Your task to perform on an android device: toggle translation in the chrome app Image 0: 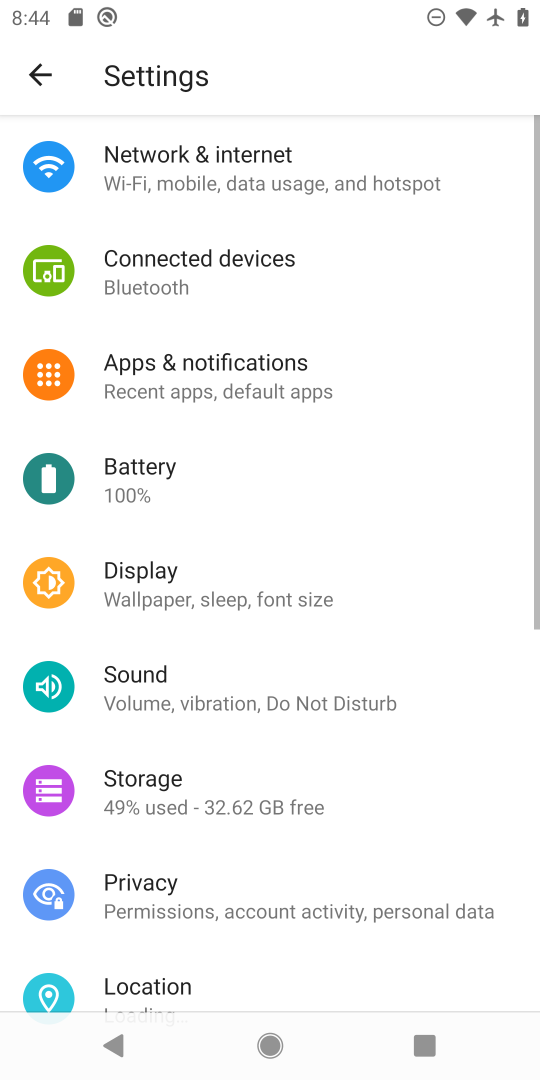
Step 0: press home button
Your task to perform on an android device: toggle translation in the chrome app Image 1: 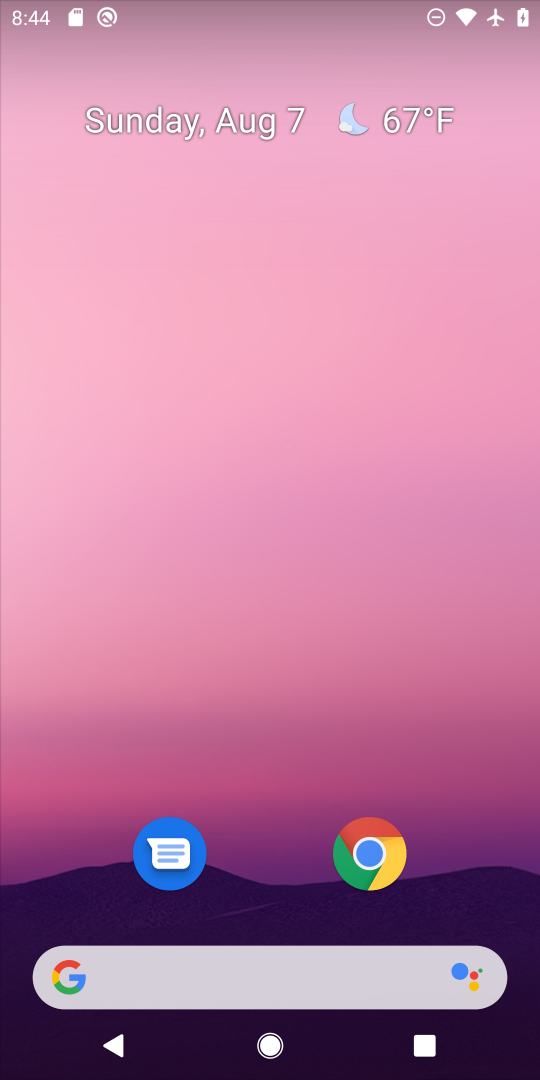
Step 1: drag from (234, 800) to (266, 157)
Your task to perform on an android device: toggle translation in the chrome app Image 2: 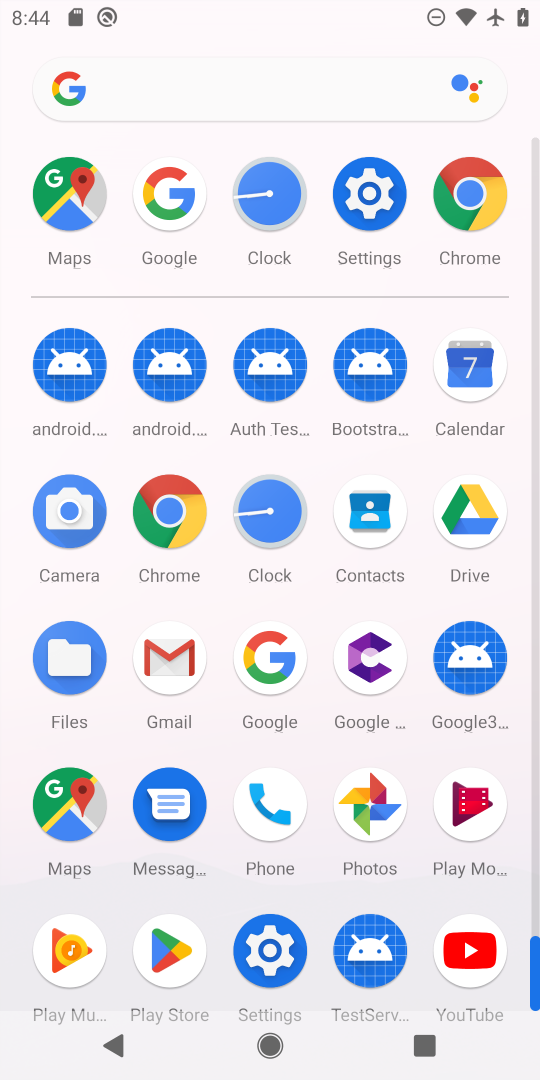
Step 2: click (473, 203)
Your task to perform on an android device: toggle translation in the chrome app Image 3: 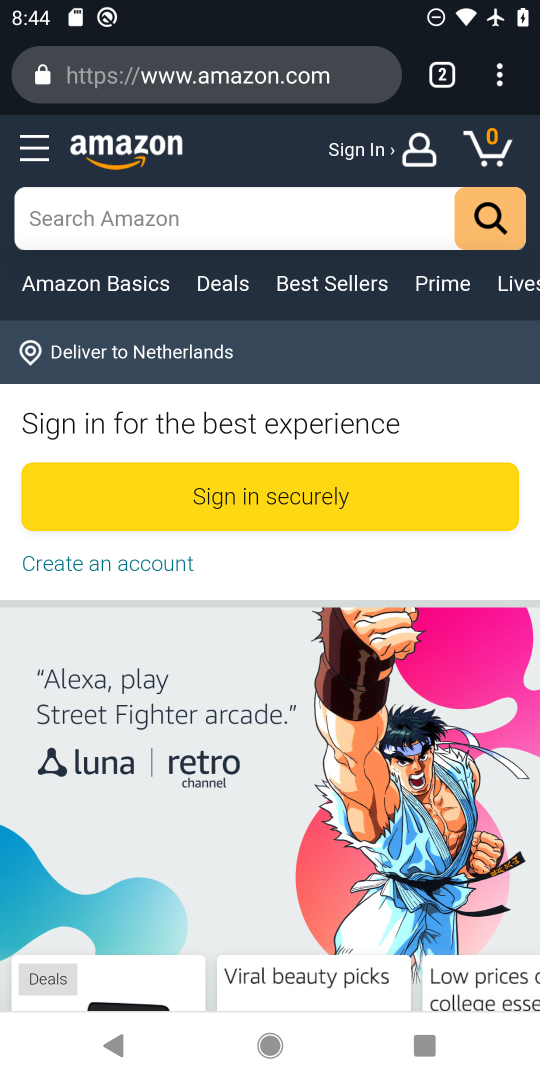
Step 3: click (493, 84)
Your task to perform on an android device: toggle translation in the chrome app Image 4: 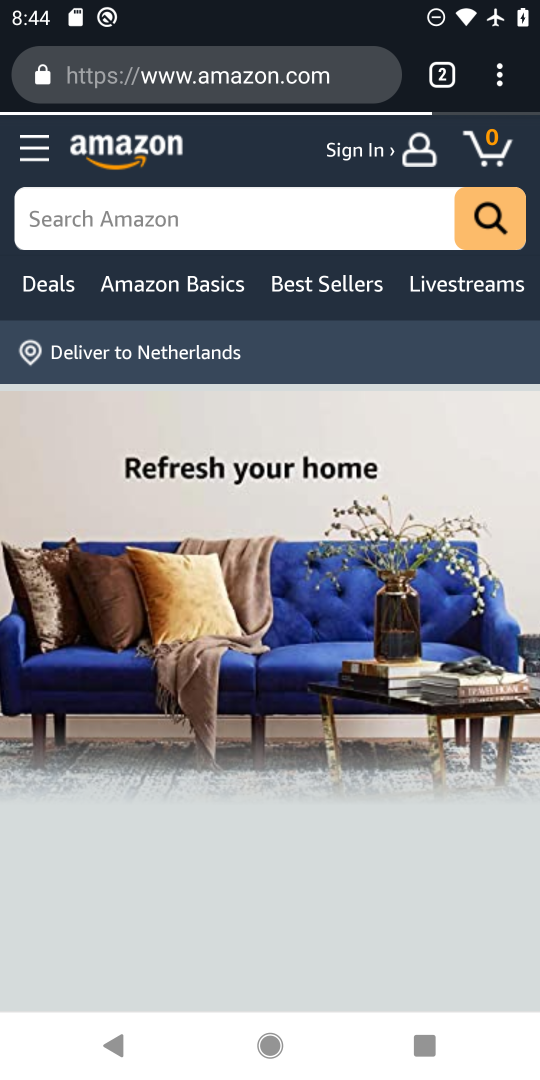
Step 4: click (506, 83)
Your task to perform on an android device: toggle translation in the chrome app Image 5: 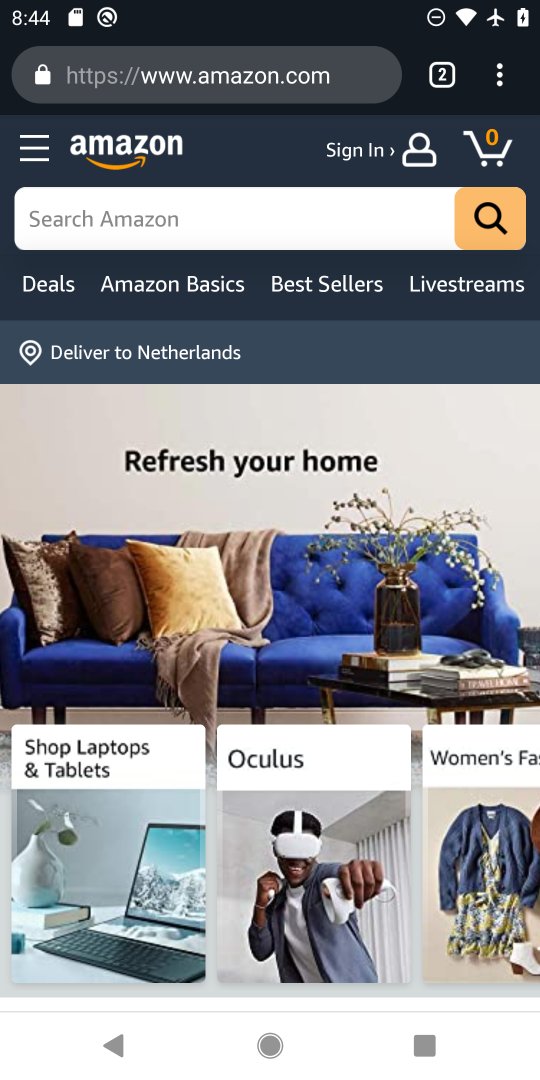
Step 5: click (507, 86)
Your task to perform on an android device: toggle translation in the chrome app Image 6: 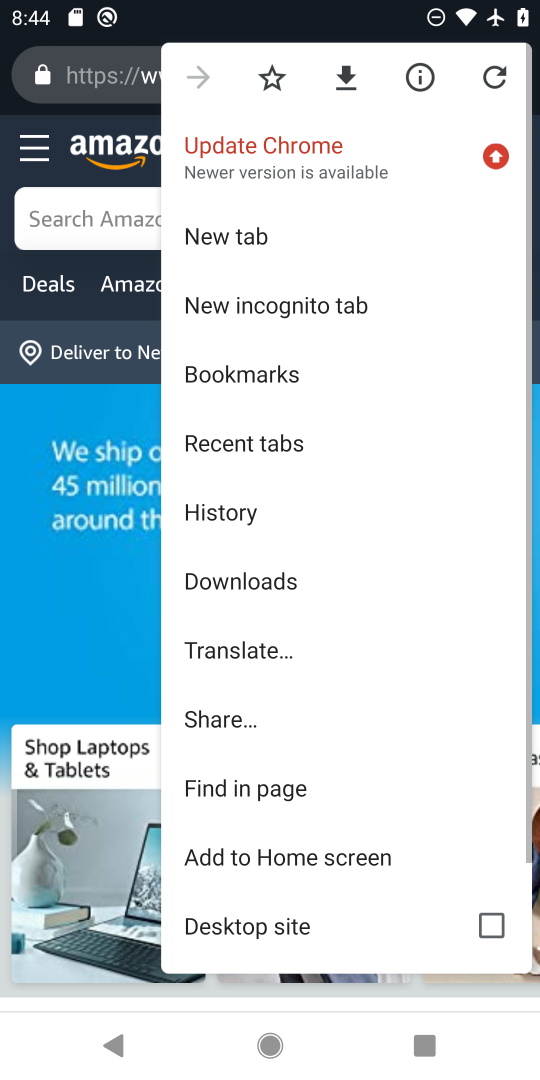
Step 6: click (284, 655)
Your task to perform on an android device: toggle translation in the chrome app Image 7: 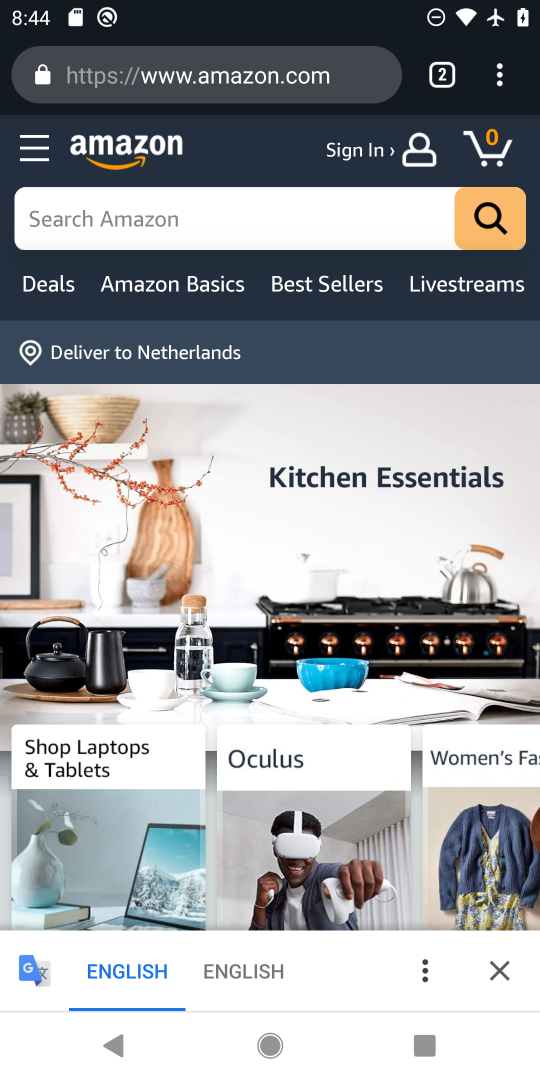
Step 7: click (424, 973)
Your task to perform on an android device: toggle translation in the chrome app Image 8: 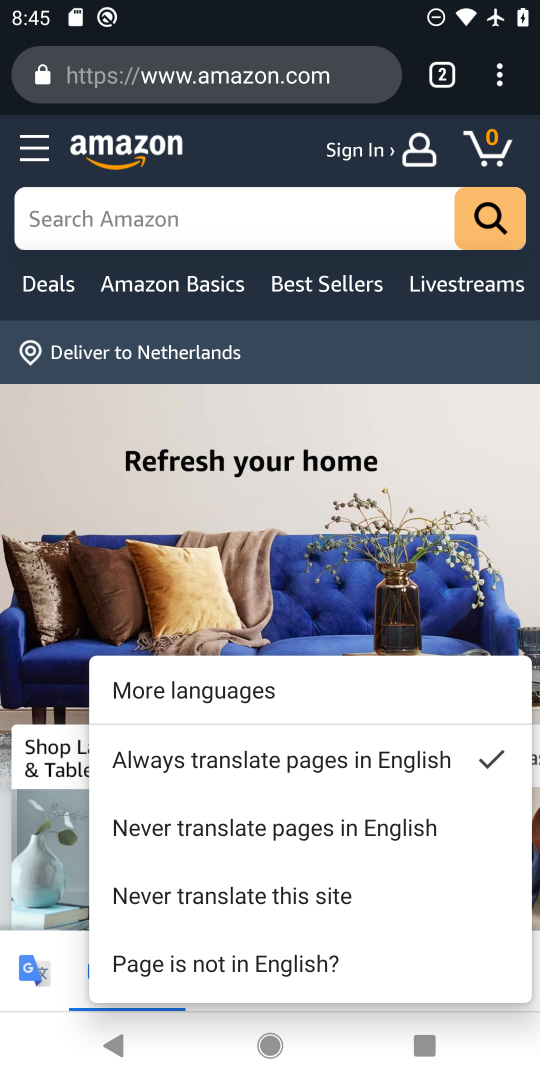
Step 8: click (330, 900)
Your task to perform on an android device: toggle translation in the chrome app Image 9: 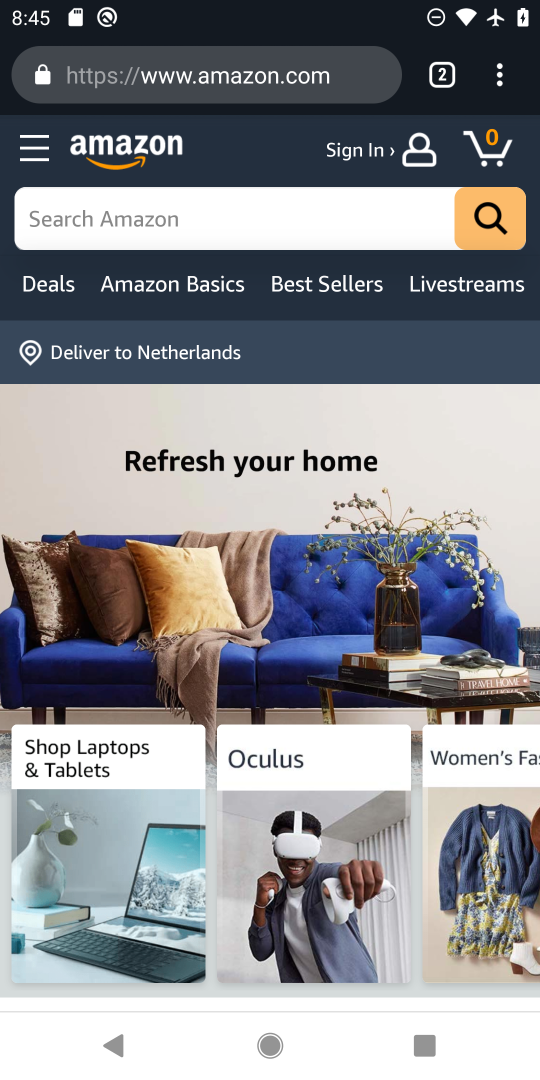
Step 9: task complete